Your task to perform on an android device: turn on javascript in the chrome app Image 0: 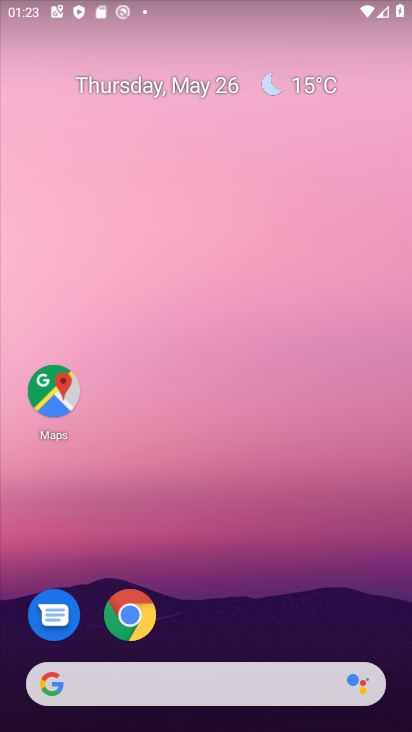
Step 0: click (115, 615)
Your task to perform on an android device: turn on javascript in the chrome app Image 1: 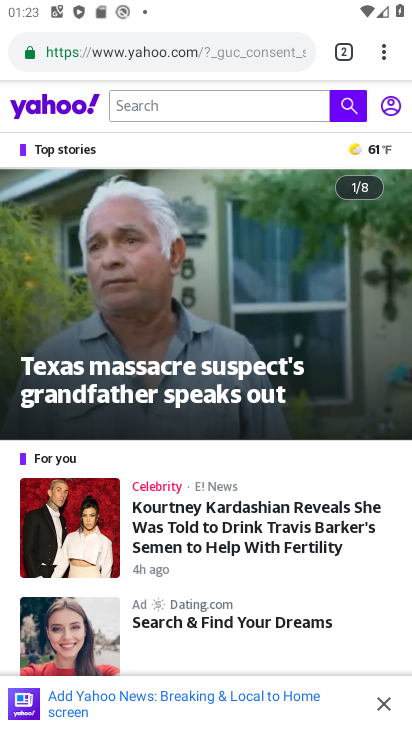
Step 1: drag from (380, 54) to (188, 628)
Your task to perform on an android device: turn on javascript in the chrome app Image 2: 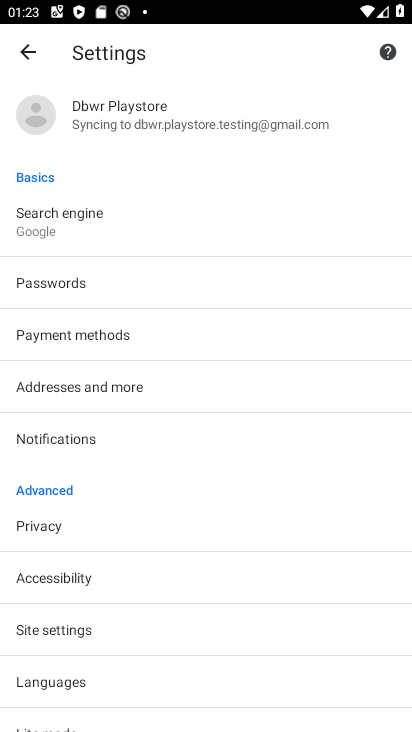
Step 2: click (87, 649)
Your task to perform on an android device: turn on javascript in the chrome app Image 3: 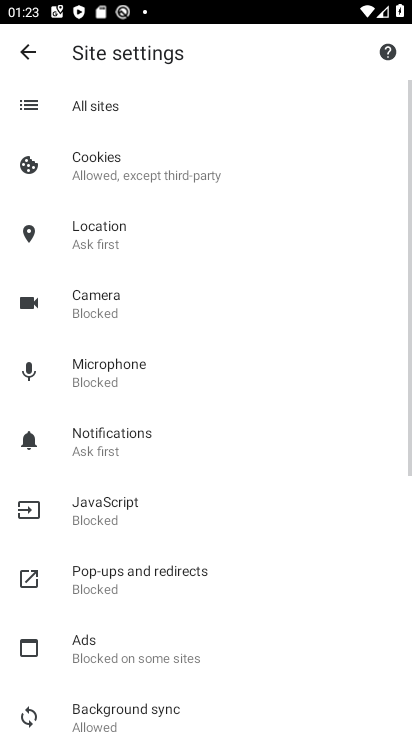
Step 3: click (135, 508)
Your task to perform on an android device: turn on javascript in the chrome app Image 4: 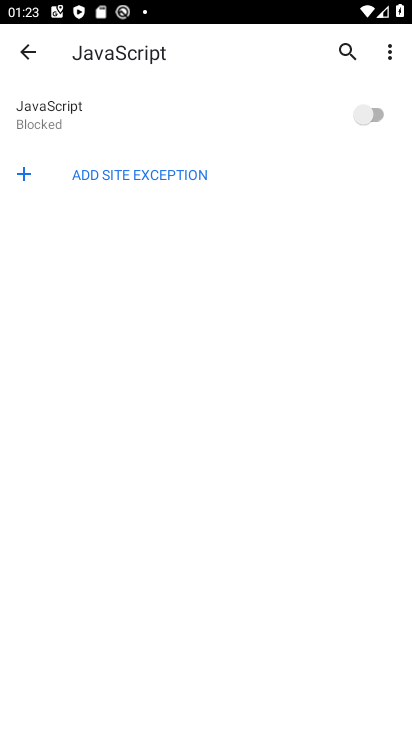
Step 4: click (368, 116)
Your task to perform on an android device: turn on javascript in the chrome app Image 5: 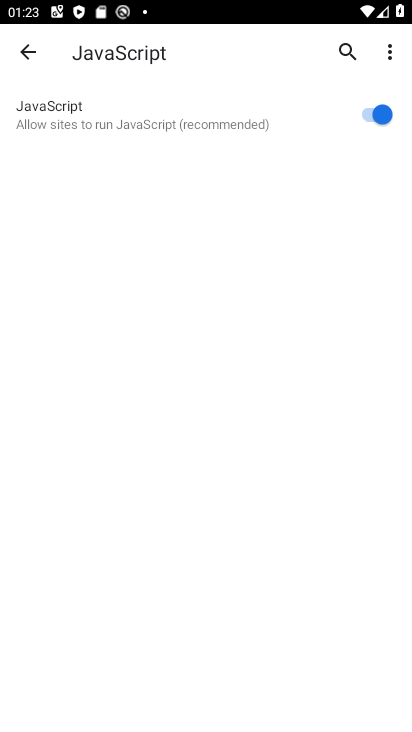
Step 5: task complete